Your task to perform on an android device: turn off sleep mode Image 0: 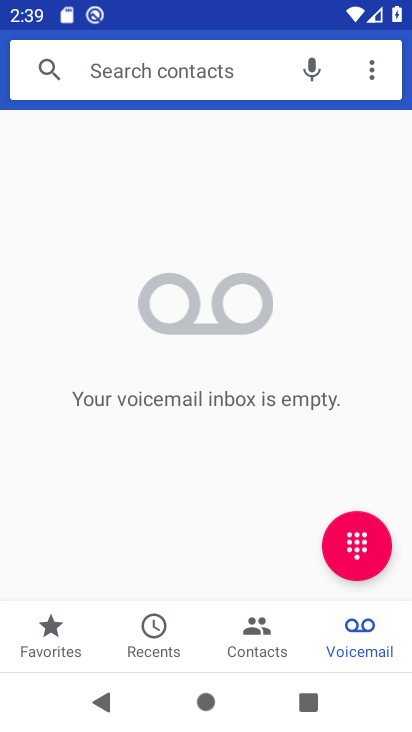
Step 0: press home button
Your task to perform on an android device: turn off sleep mode Image 1: 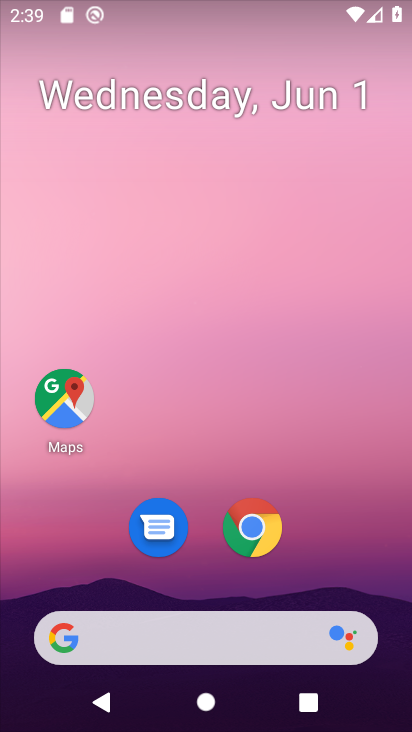
Step 1: drag from (189, 573) to (239, 9)
Your task to perform on an android device: turn off sleep mode Image 2: 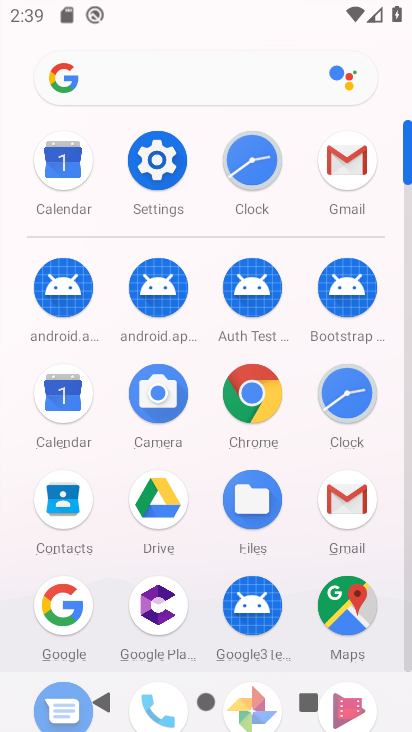
Step 2: click (175, 185)
Your task to perform on an android device: turn off sleep mode Image 3: 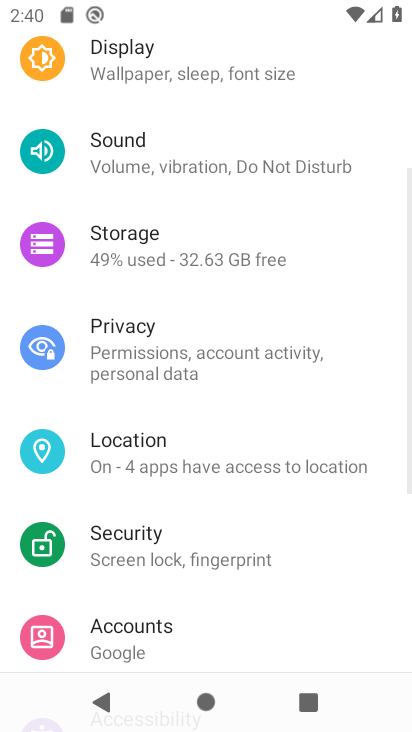
Step 3: drag from (181, 249) to (192, 429)
Your task to perform on an android device: turn off sleep mode Image 4: 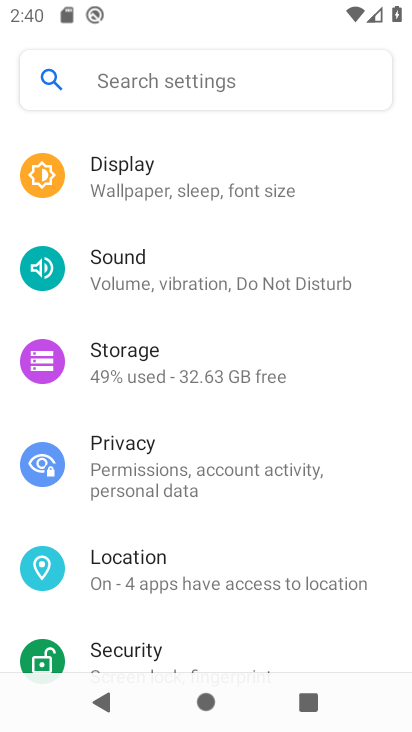
Step 4: click (179, 73)
Your task to perform on an android device: turn off sleep mode Image 5: 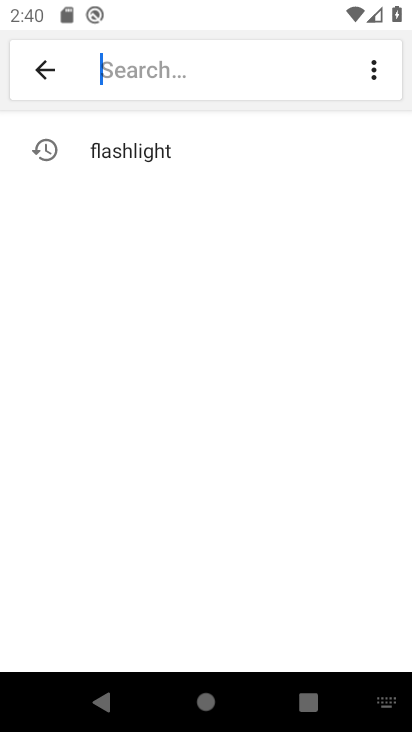
Step 5: type "sleep mode"
Your task to perform on an android device: turn off sleep mode Image 6: 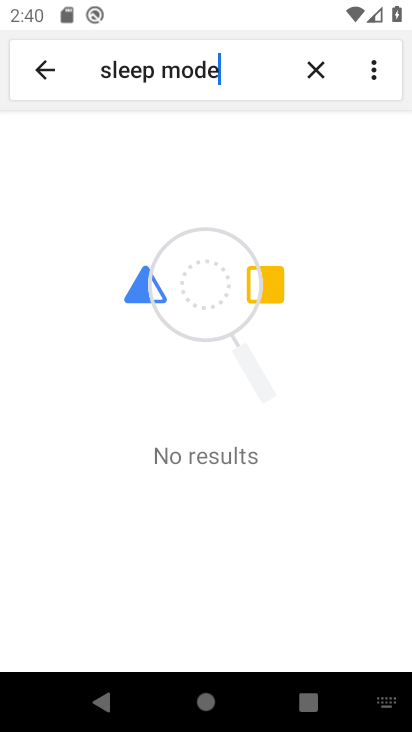
Step 6: task complete